Your task to perform on an android device: Open Google Maps Image 0: 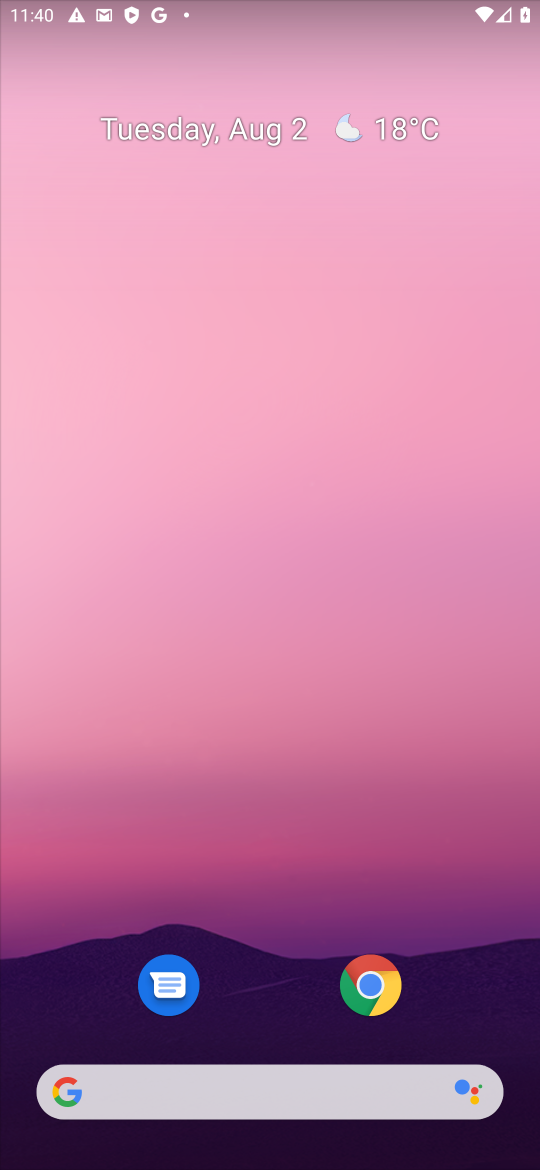
Step 0: drag from (292, 989) to (399, 148)
Your task to perform on an android device: Open Google Maps Image 1: 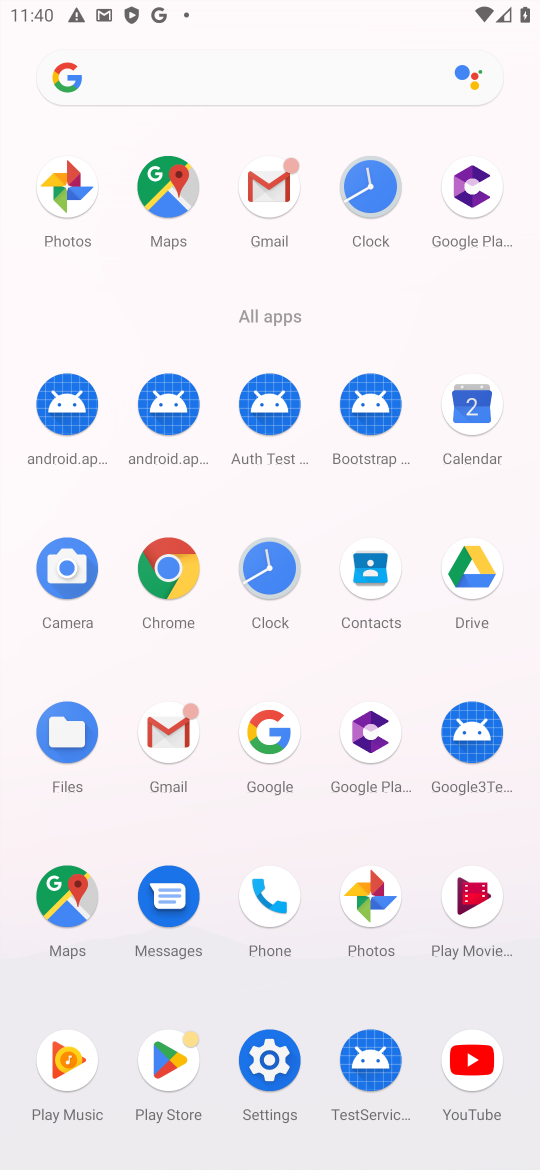
Step 1: click (160, 203)
Your task to perform on an android device: Open Google Maps Image 2: 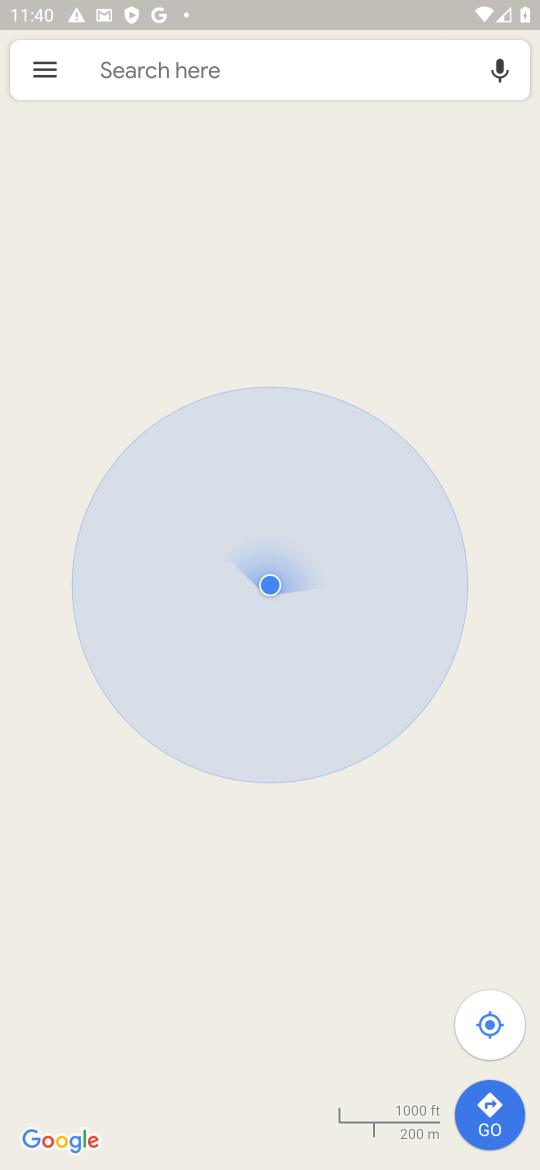
Step 2: task complete